Your task to perform on an android device: Open the calendar and show me this week's events Image 0: 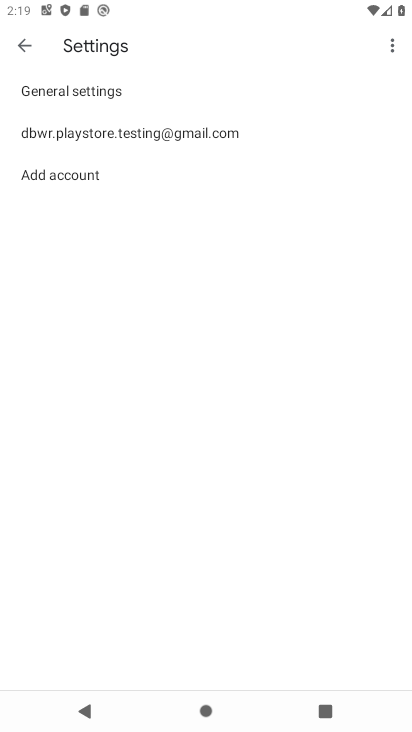
Step 0: press back button
Your task to perform on an android device: Open the calendar and show me this week's events Image 1: 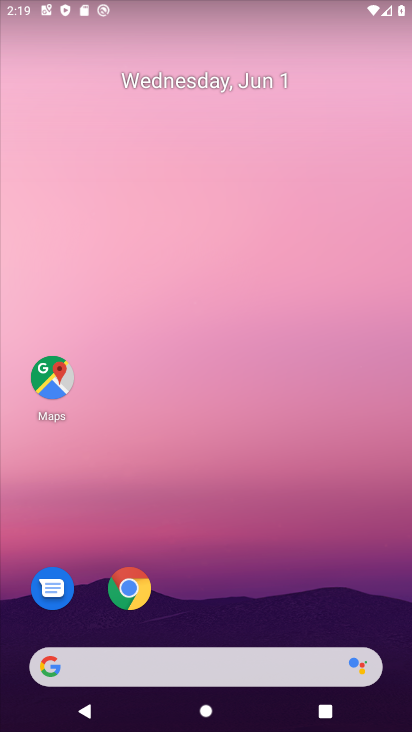
Step 1: drag from (260, 588) to (293, 48)
Your task to perform on an android device: Open the calendar and show me this week's events Image 2: 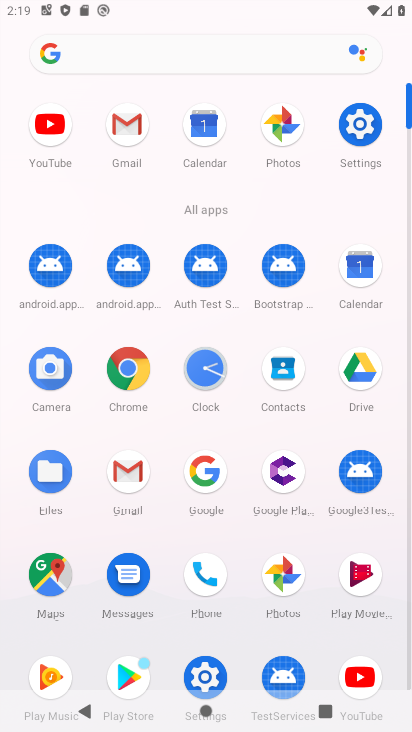
Step 2: click (364, 265)
Your task to perform on an android device: Open the calendar and show me this week's events Image 3: 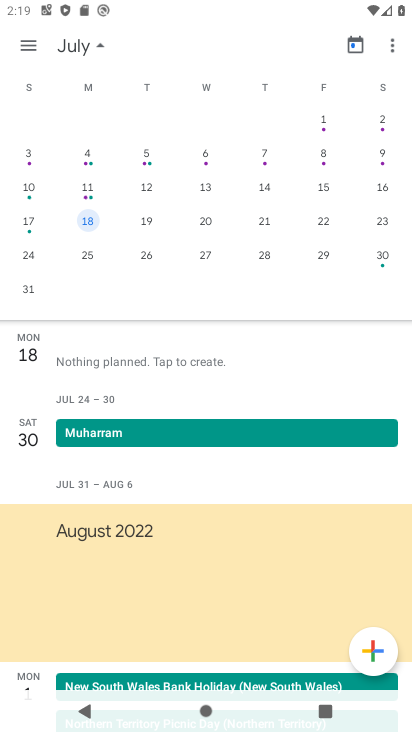
Step 3: drag from (47, 187) to (337, 196)
Your task to perform on an android device: Open the calendar and show me this week's events Image 4: 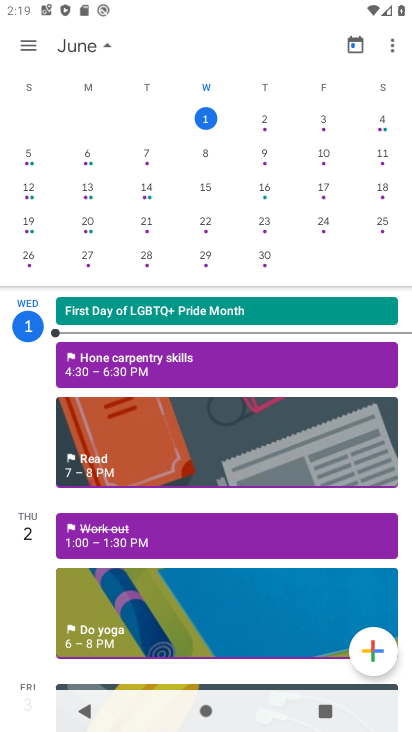
Step 4: click (208, 118)
Your task to perform on an android device: Open the calendar and show me this week's events Image 5: 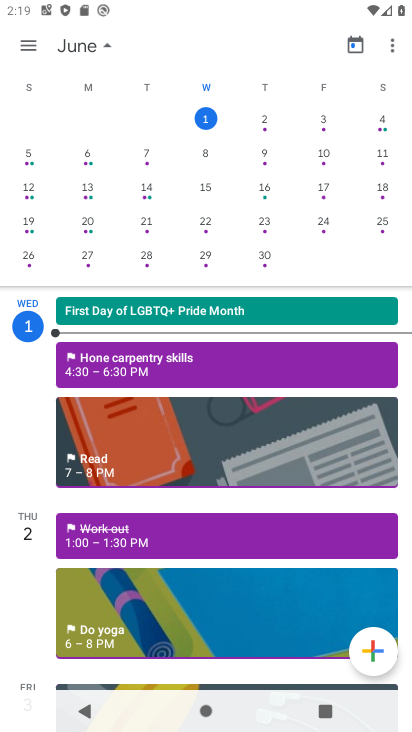
Step 5: drag from (171, 496) to (223, 187)
Your task to perform on an android device: Open the calendar and show me this week's events Image 6: 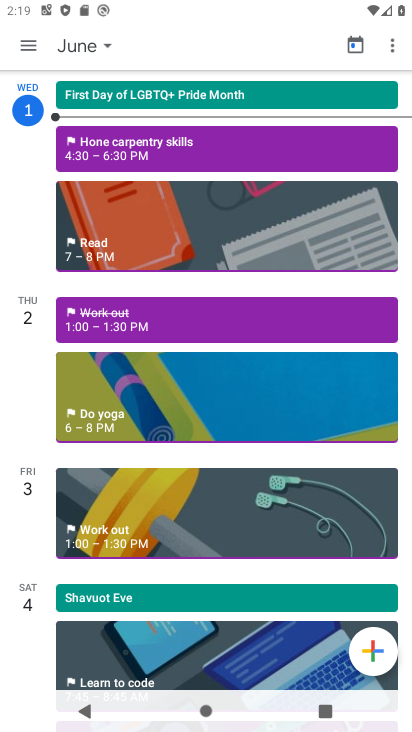
Step 6: click (107, 596)
Your task to perform on an android device: Open the calendar and show me this week's events Image 7: 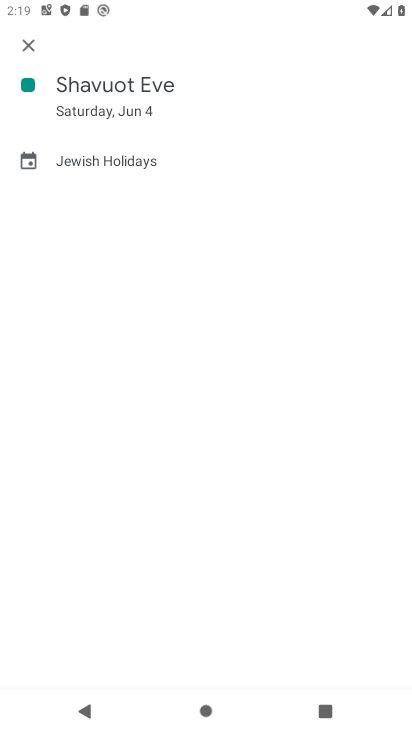
Step 7: task complete